Your task to perform on an android device: Go to Google Image 0: 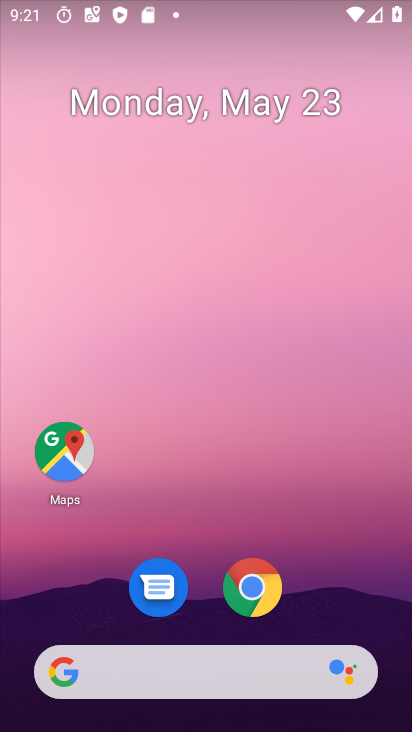
Step 0: drag from (301, 610) to (225, 353)
Your task to perform on an android device: Go to Google Image 1: 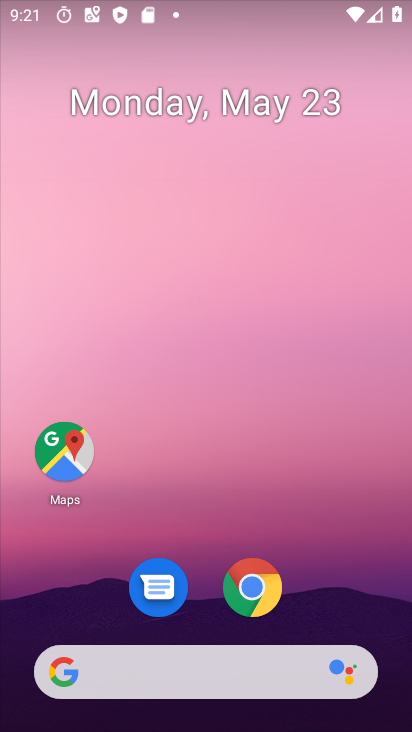
Step 1: click (182, 668)
Your task to perform on an android device: Go to Google Image 2: 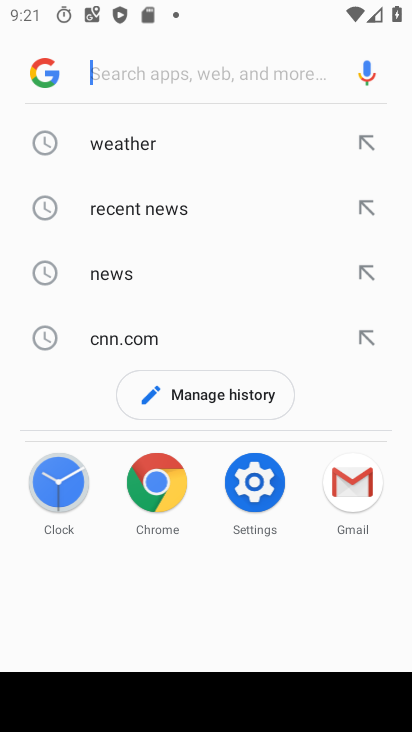
Step 2: task complete